Your task to perform on an android device: turn off location history Image 0: 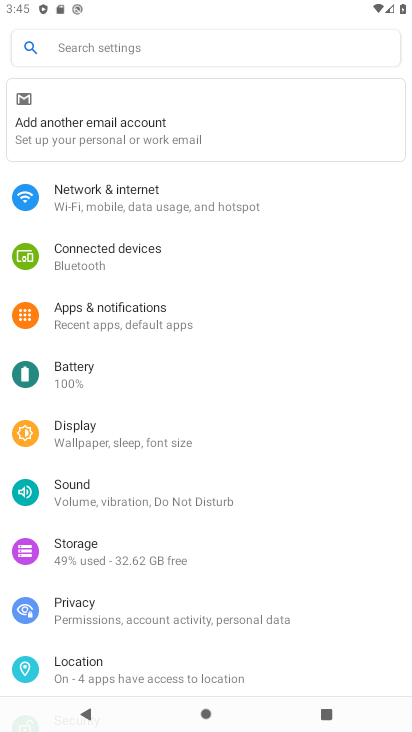
Step 0: click (120, 676)
Your task to perform on an android device: turn off location history Image 1: 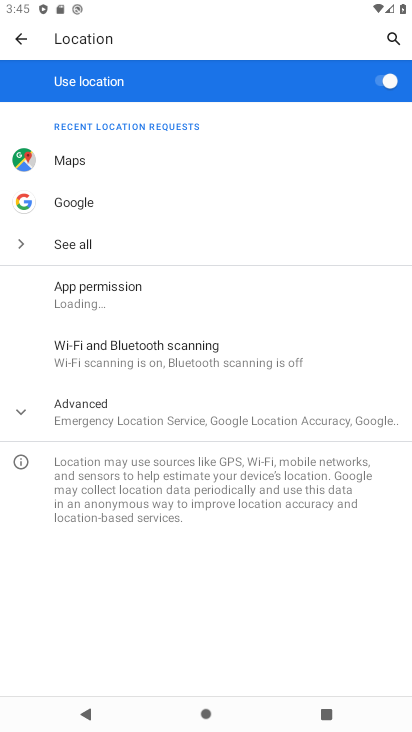
Step 1: click (107, 408)
Your task to perform on an android device: turn off location history Image 2: 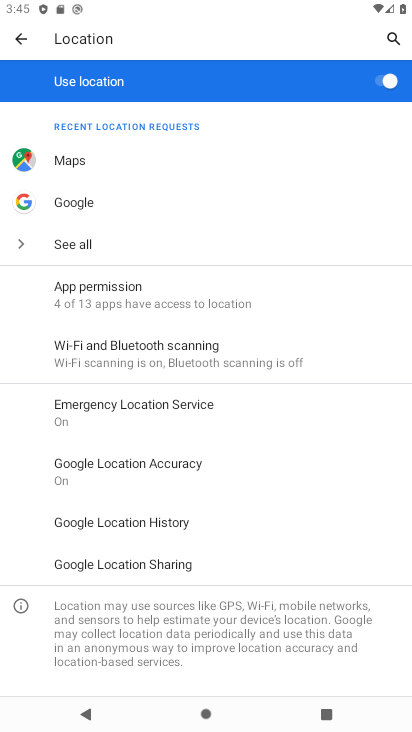
Step 2: click (135, 527)
Your task to perform on an android device: turn off location history Image 3: 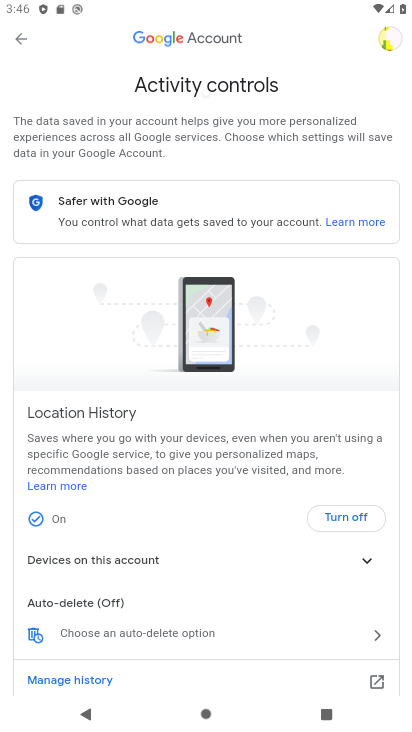
Step 3: click (345, 516)
Your task to perform on an android device: turn off location history Image 4: 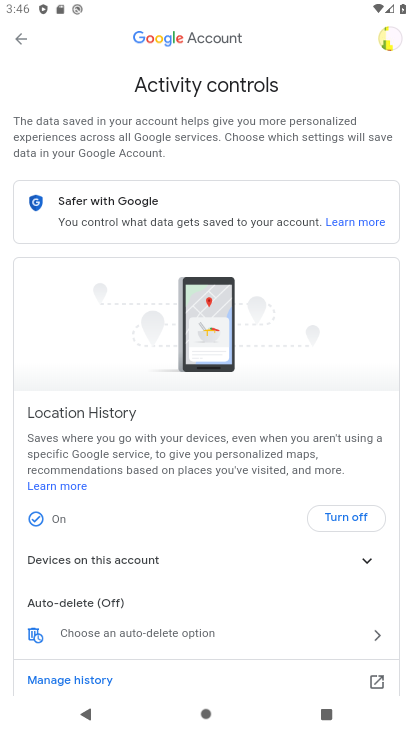
Step 4: click (346, 517)
Your task to perform on an android device: turn off location history Image 5: 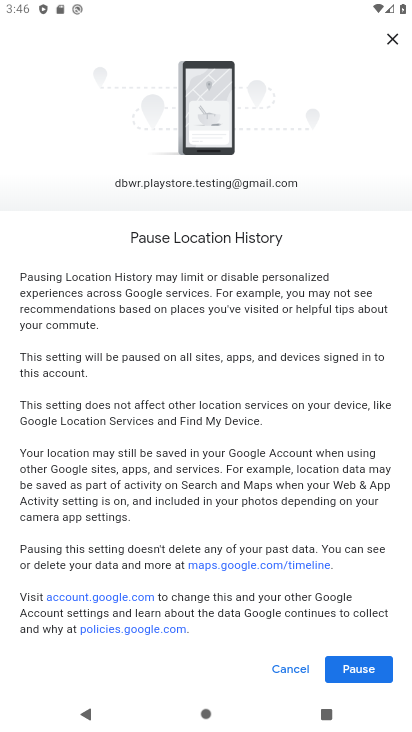
Step 5: click (362, 680)
Your task to perform on an android device: turn off location history Image 6: 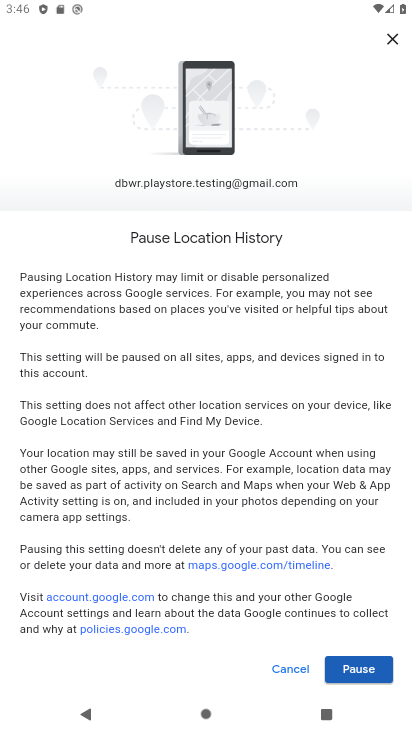
Step 6: click (358, 674)
Your task to perform on an android device: turn off location history Image 7: 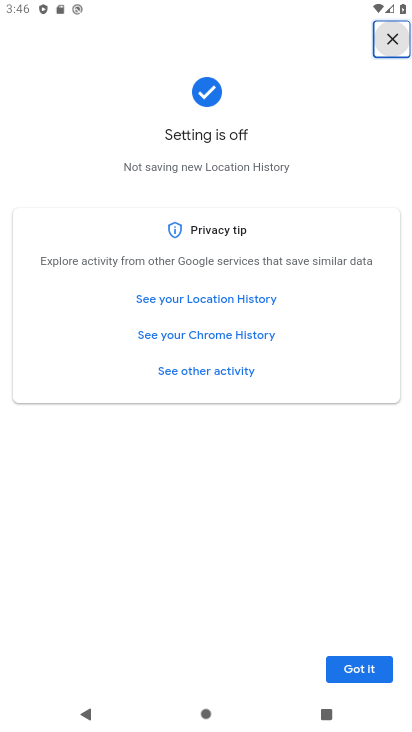
Step 7: click (352, 675)
Your task to perform on an android device: turn off location history Image 8: 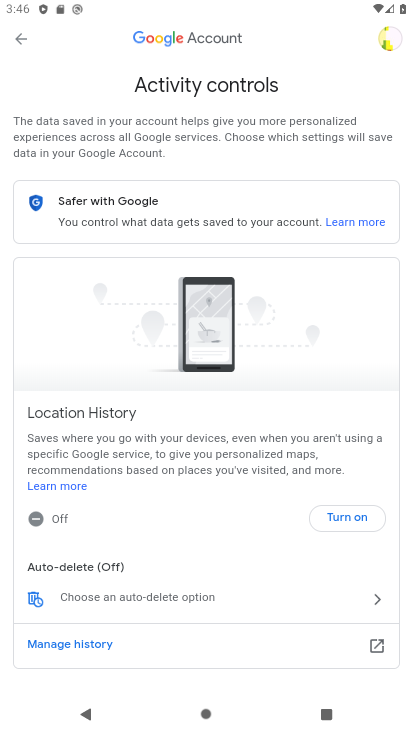
Step 8: task complete